Your task to perform on an android device: Search for Italian restaurants on Maps Image 0: 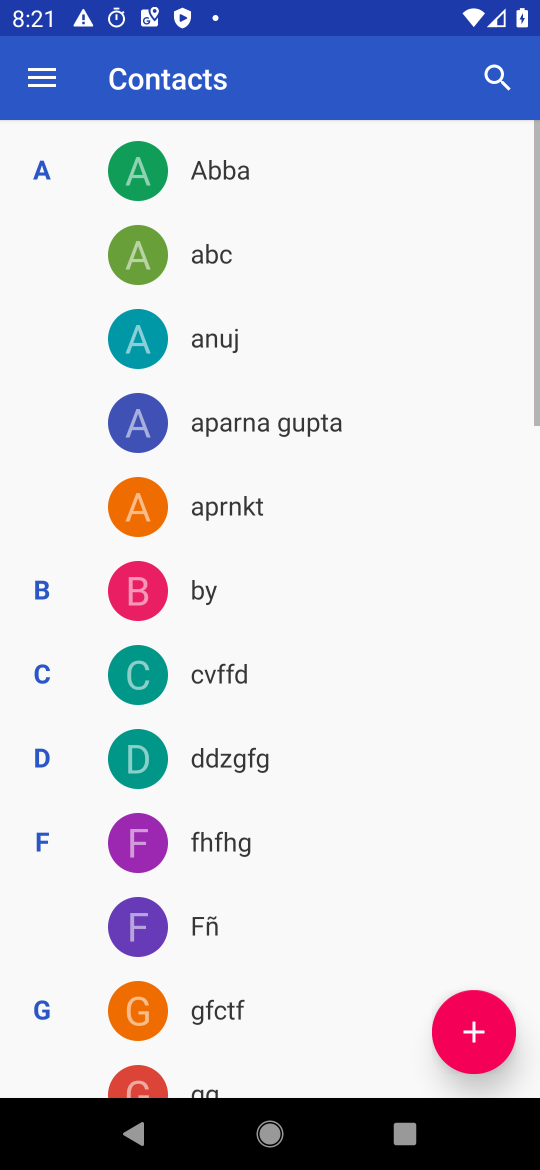
Step 0: press home button
Your task to perform on an android device: Search for Italian restaurants on Maps Image 1: 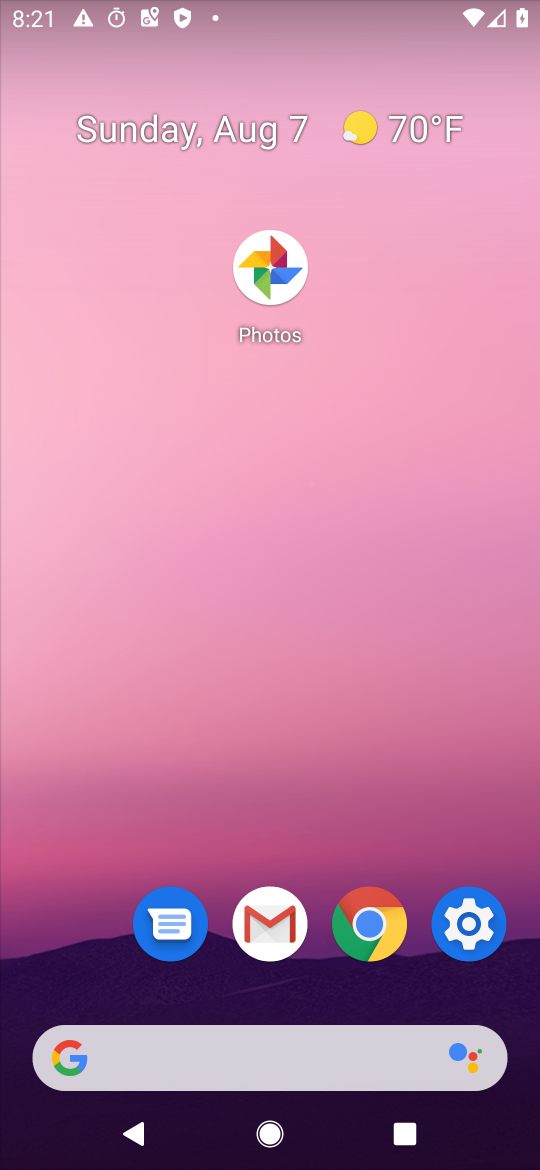
Step 1: drag from (357, 630) to (327, 366)
Your task to perform on an android device: Search for Italian restaurants on Maps Image 2: 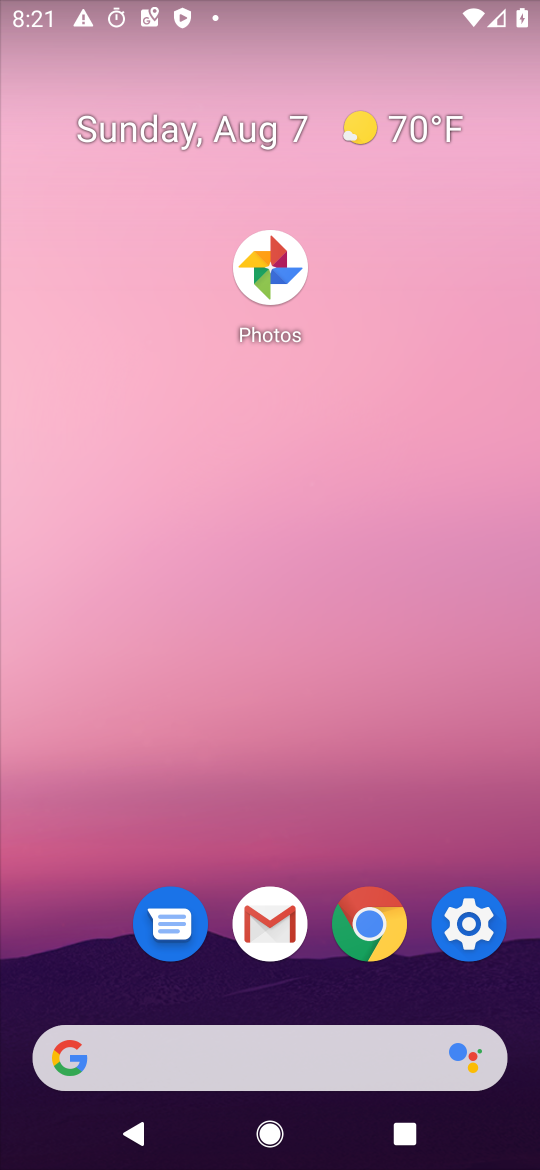
Step 2: drag from (285, 1053) to (204, 237)
Your task to perform on an android device: Search for Italian restaurants on Maps Image 3: 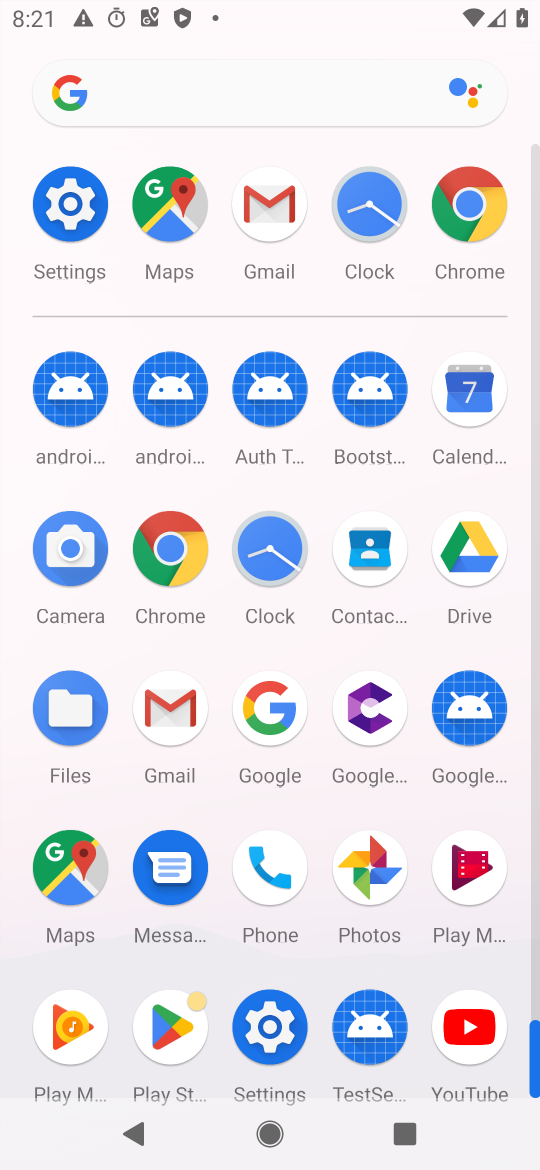
Step 3: click (188, 189)
Your task to perform on an android device: Search for Italian restaurants on Maps Image 4: 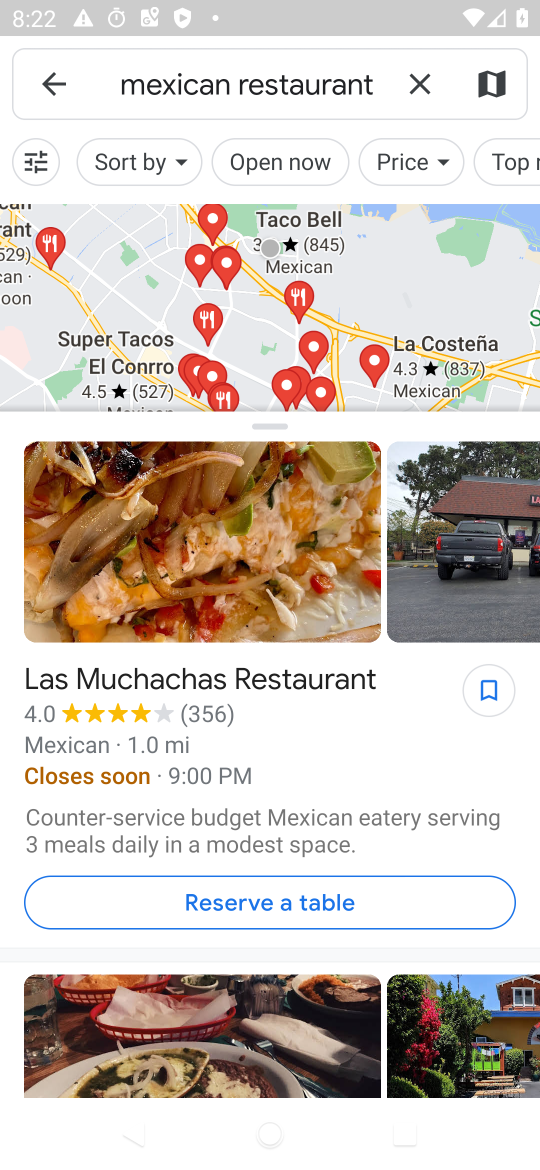
Step 4: click (413, 86)
Your task to perform on an android device: Search for Italian restaurants on Maps Image 5: 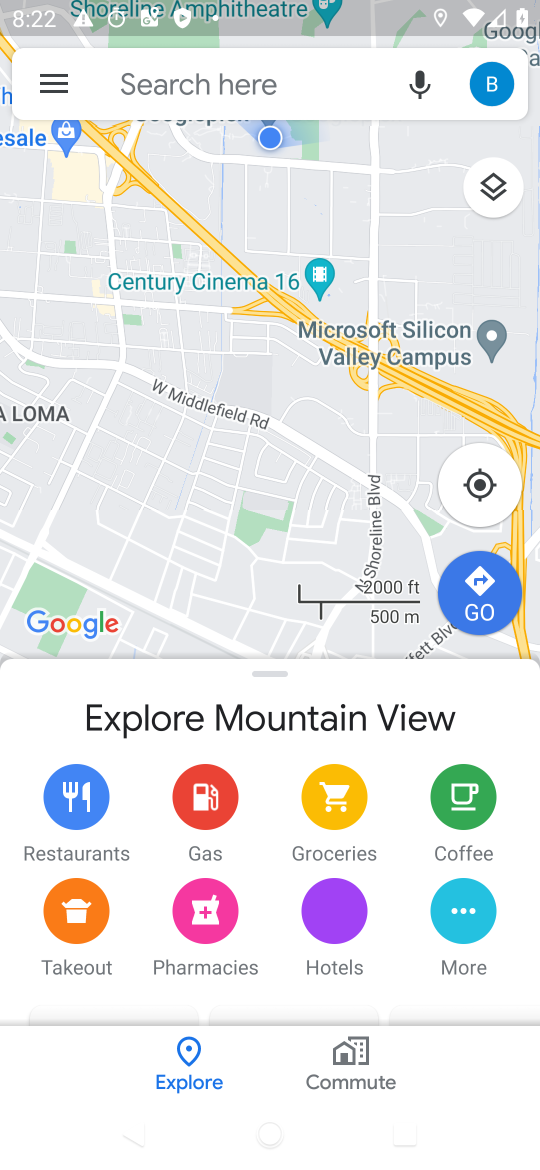
Step 5: click (336, 84)
Your task to perform on an android device: Search for Italian restaurants on Maps Image 6: 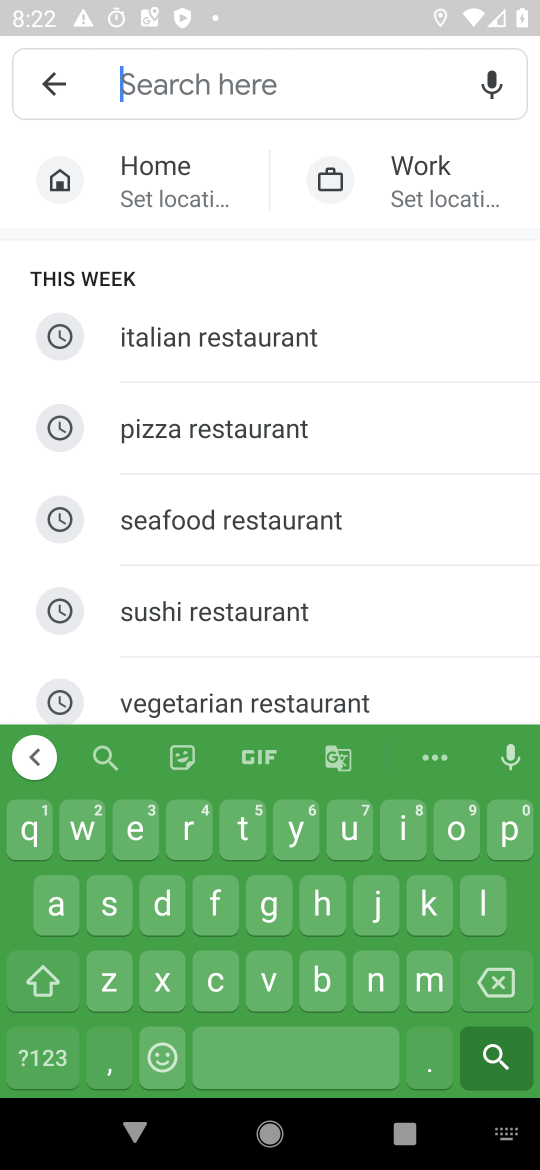
Step 6: click (267, 328)
Your task to perform on an android device: Search for Italian restaurants on Maps Image 7: 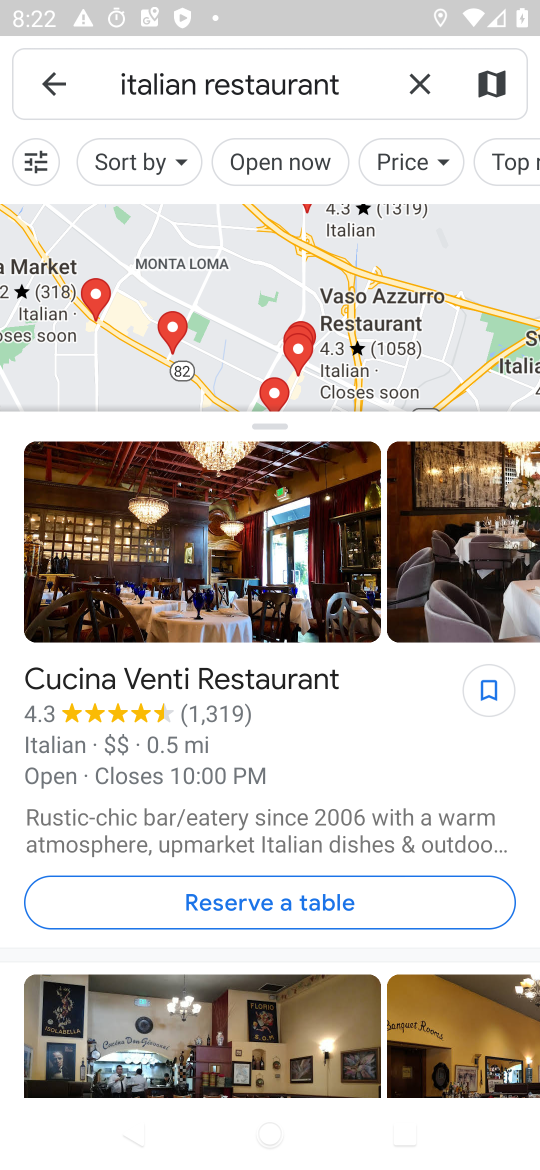
Step 7: task complete